Your task to perform on an android device: Turn on the flashlight Image 0: 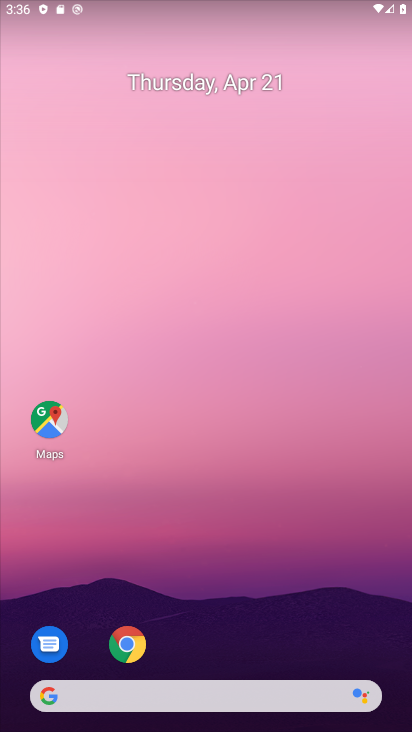
Step 0: drag from (181, 676) to (144, 159)
Your task to perform on an android device: Turn on the flashlight Image 1: 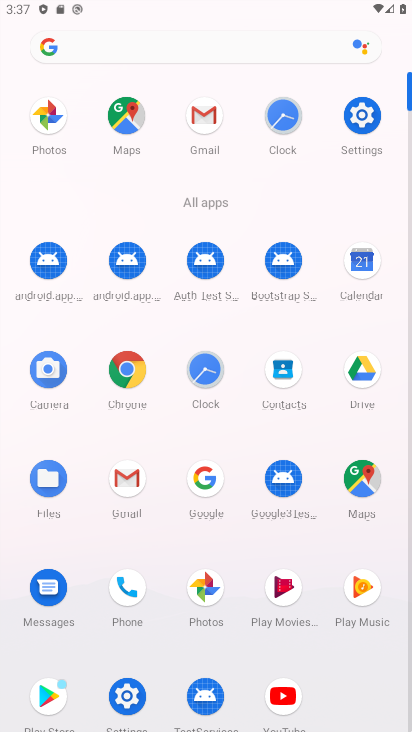
Step 1: click (366, 121)
Your task to perform on an android device: Turn on the flashlight Image 2: 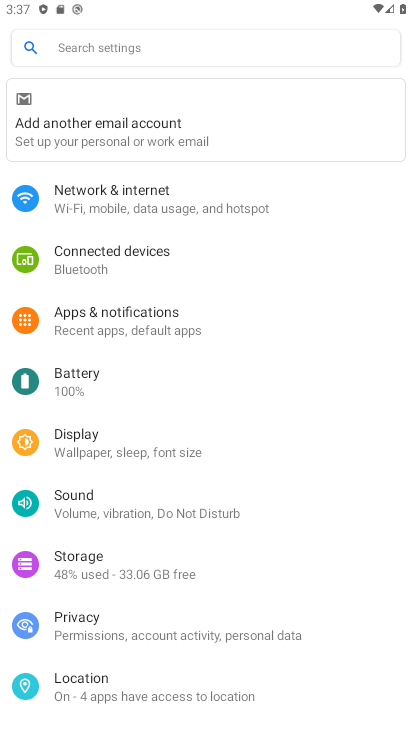
Step 2: click (116, 443)
Your task to perform on an android device: Turn on the flashlight Image 3: 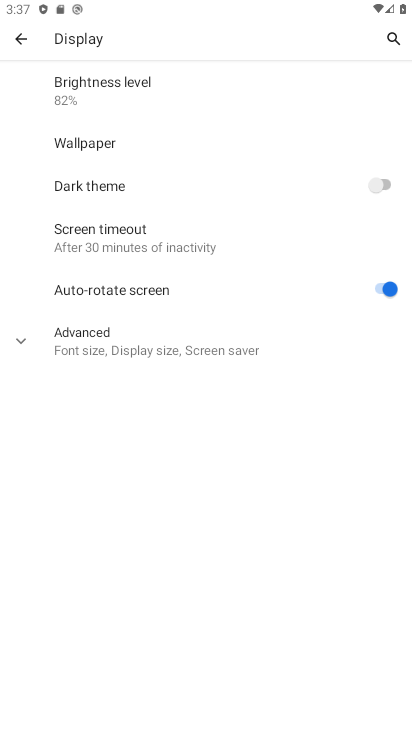
Step 3: task complete